Your task to perform on an android device: Open wifi settings Image 0: 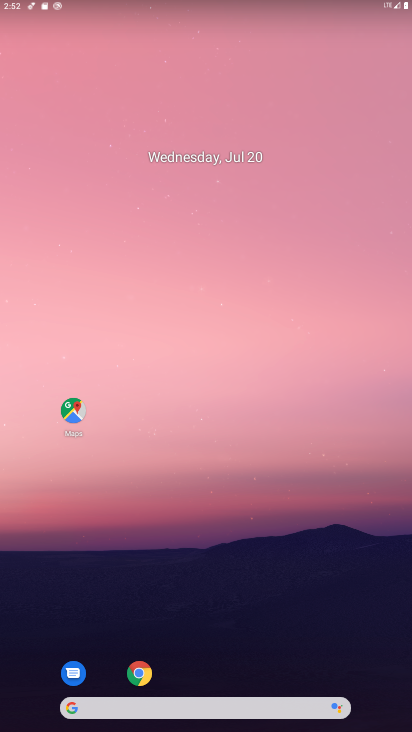
Step 0: click (142, 669)
Your task to perform on an android device: Open wifi settings Image 1: 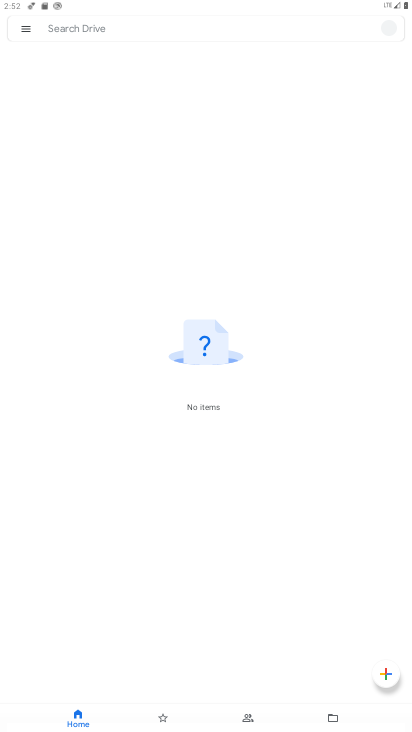
Step 1: press home button
Your task to perform on an android device: Open wifi settings Image 2: 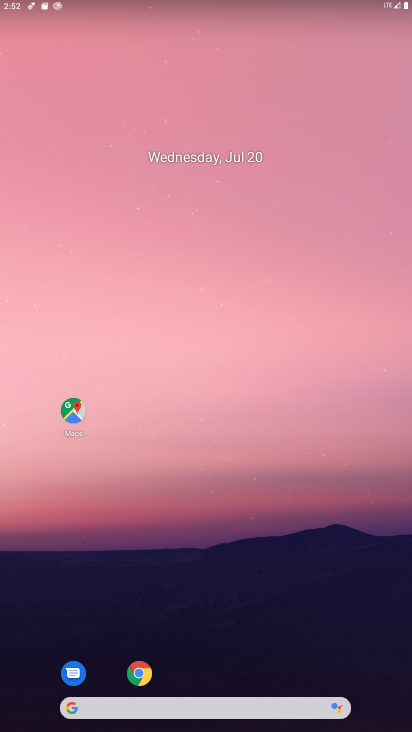
Step 2: drag from (205, 677) to (289, 18)
Your task to perform on an android device: Open wifi settings Image 3: 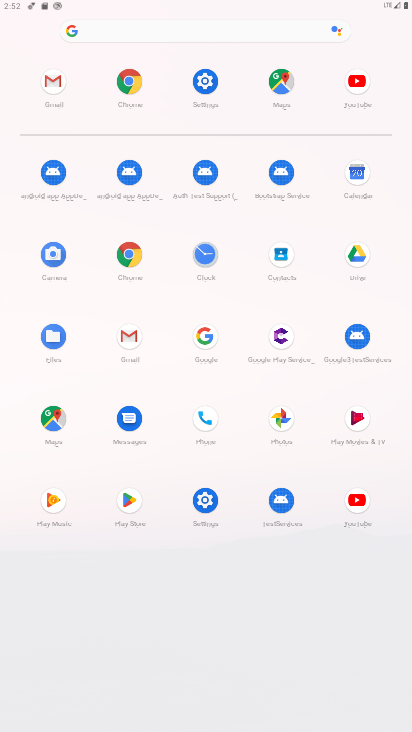
Step 3: click (212, 504)
Your task to perform on an android device: Open wifi settings Image 4: 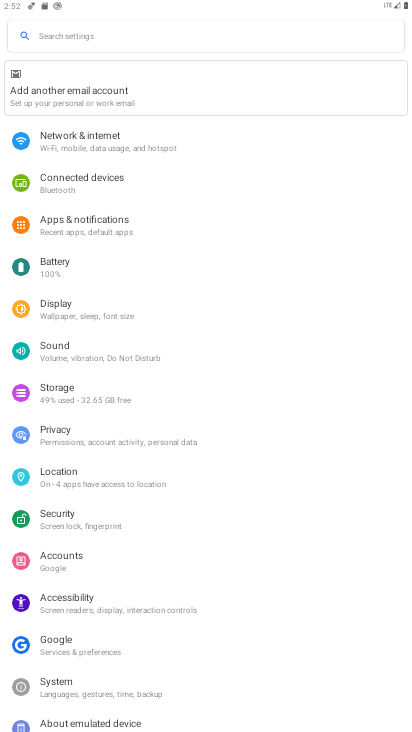
Step 4: click (149, 142)
Your task to perform on an android device: Open wifi settings Image 5: 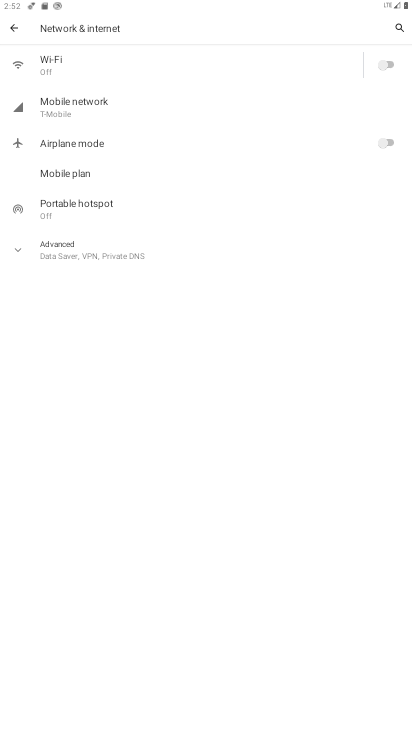
Step 5: click (241, 67)
Your task to perform on an android device: Open wifi settings Image 6: 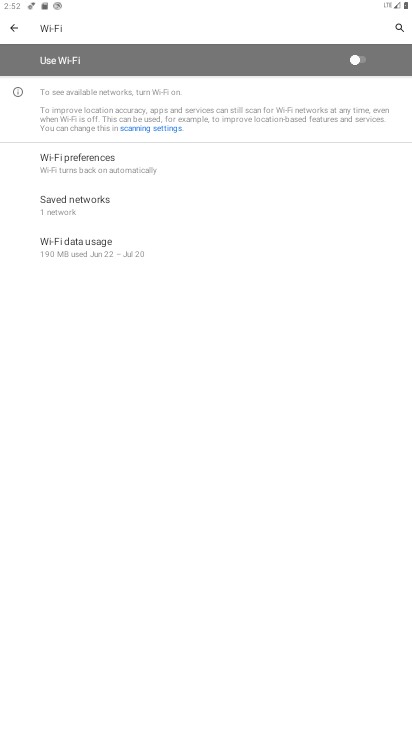
Step 6: task complete